Your task to perform on an android device: manage bookmarks in the chrome app Image 0: 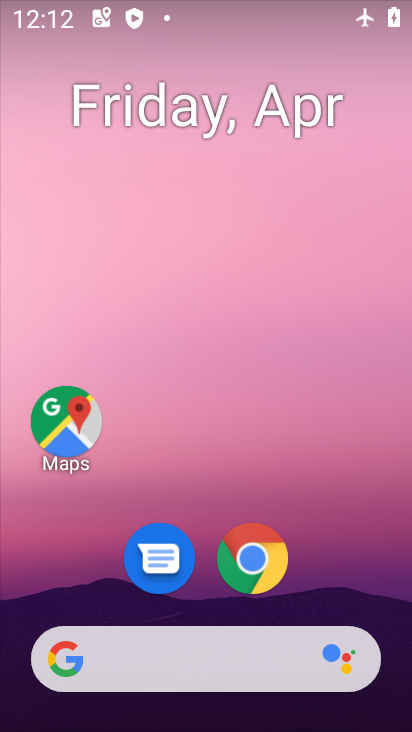
Step 0: drag from (393, 606) to (231, 46)
Your task to perform on an android device: manage bookmarks in the chrome app Image 1: 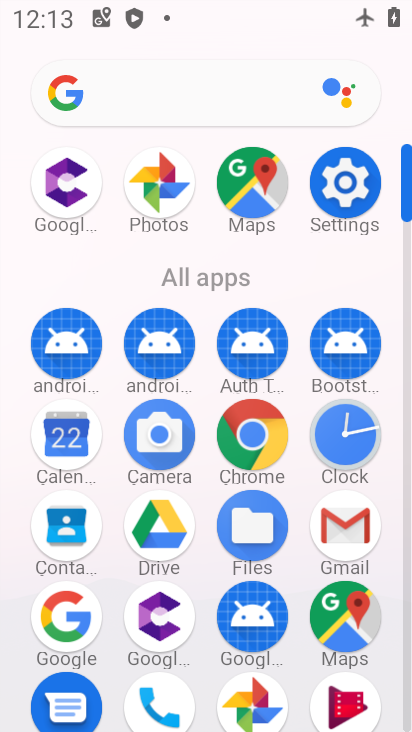
Step 1: click (256, 432)
Your task to perform on an android device: manage bookmarks in the chrome app Image 2: 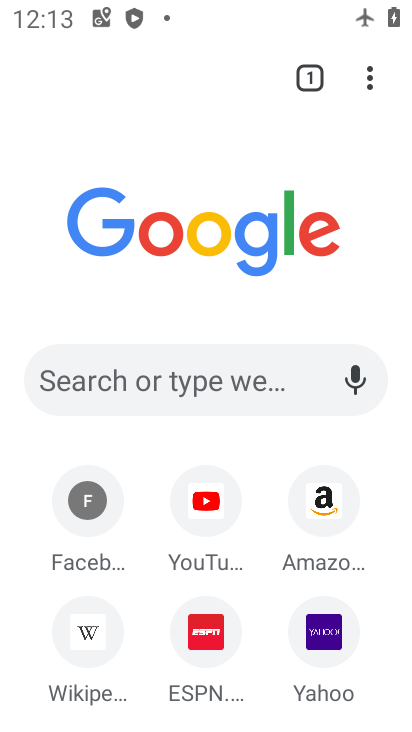
Step 2: click (365, 67)
Your task to perform on an android device: manage bookmarks in the chrome app Image 3: 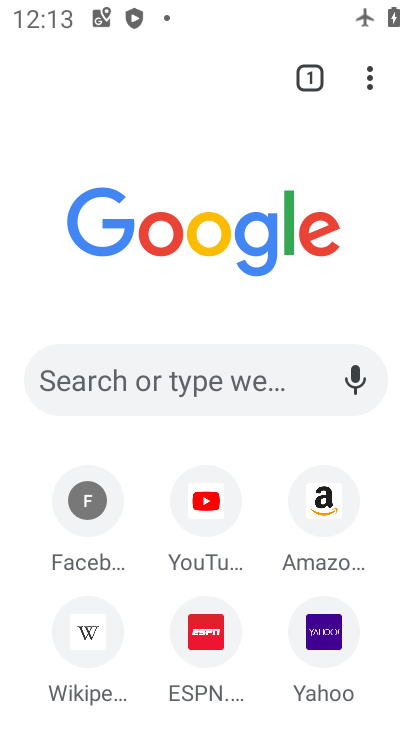
Step 3: click (369, 68)
Your task to perform on an android device: manage bookmarks in the chrome app Image 4: 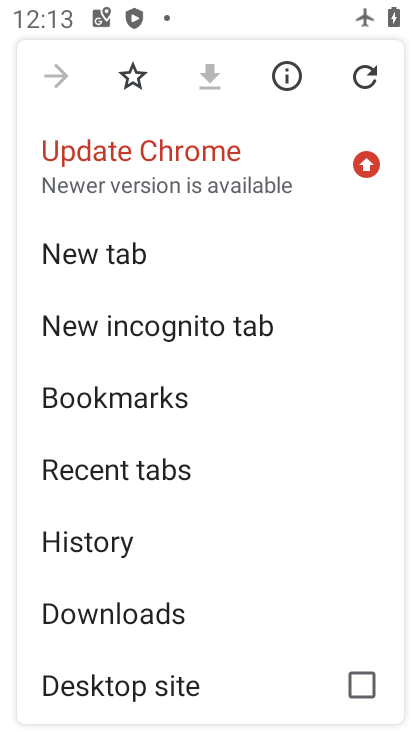
Step 4: click (187, 402)
Your task to perform on an android device: manage bookmarks in the chrome app Image 5: 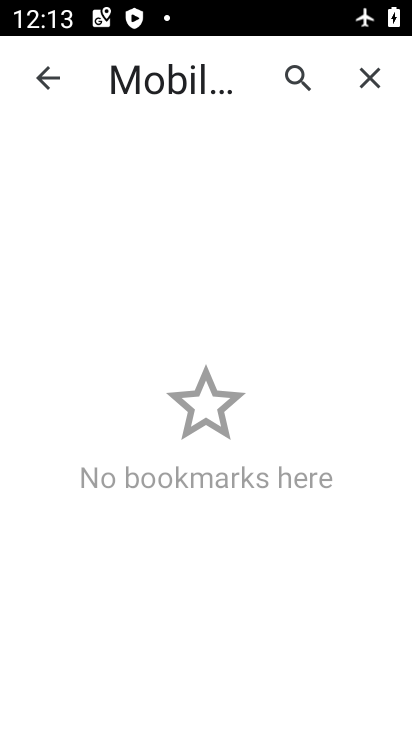
Step 5: task complete